Your task to perform on an android device: set default search engine in the chrome app Image 0: 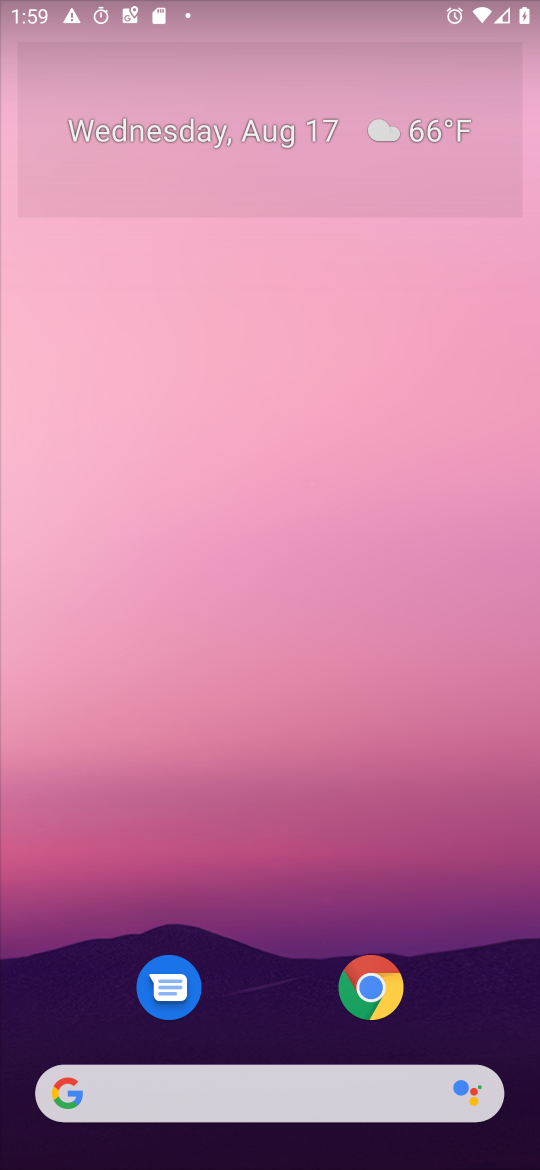
Step 0: click (348, 978)
Your task to perform on an android device: set default search engine in the chrome app Image 1: 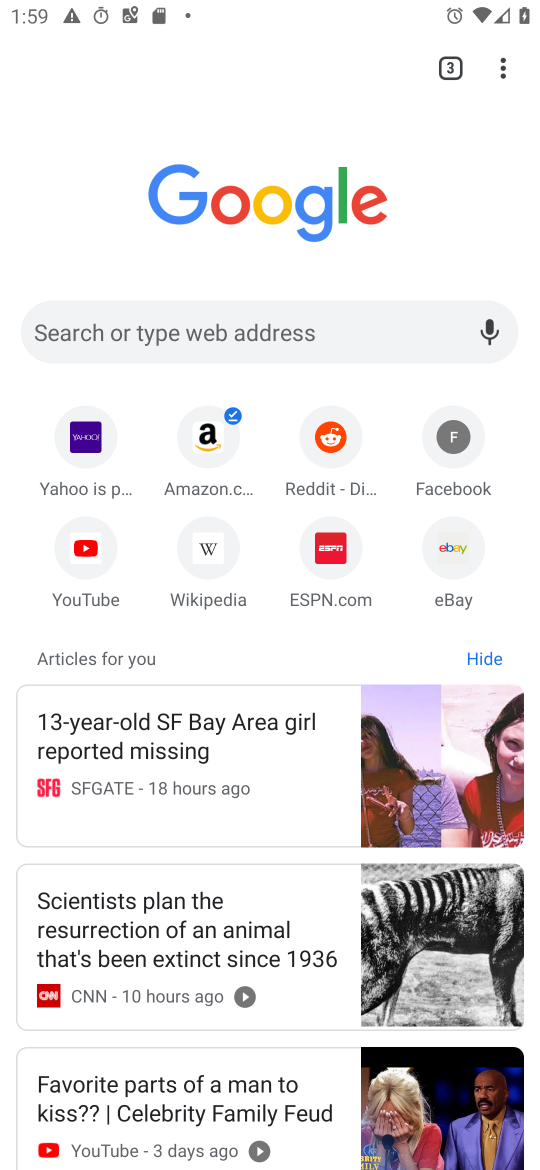
Step 1: click (507, 62)
Your task to perform on an android device: set default search engine in the chrome app Image 2: 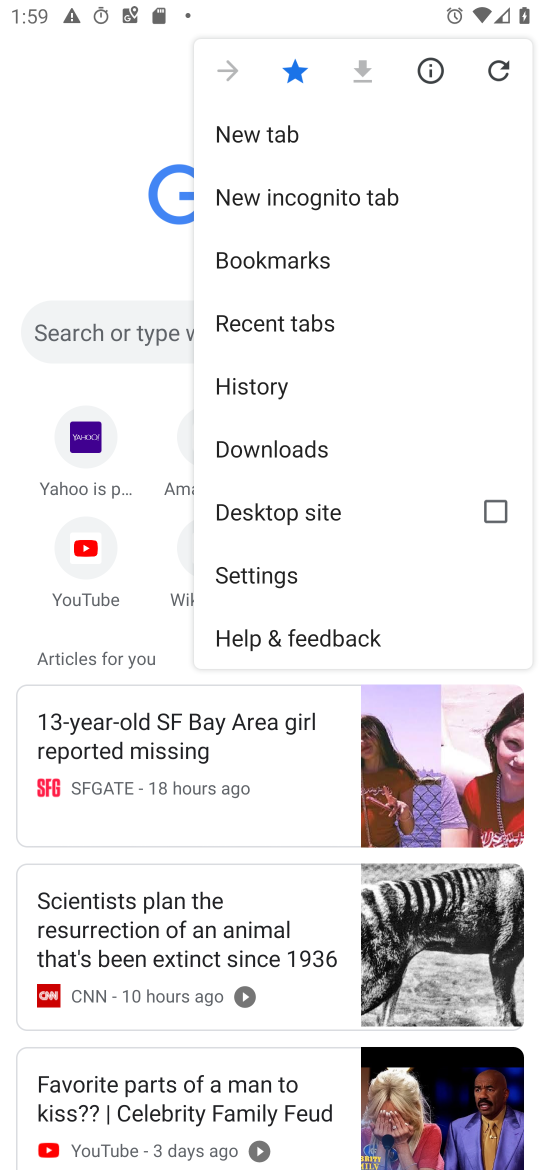
Step 2: click (272, 569)
Your task to perform on an android device: set default search engine in the chrome app Image 3: 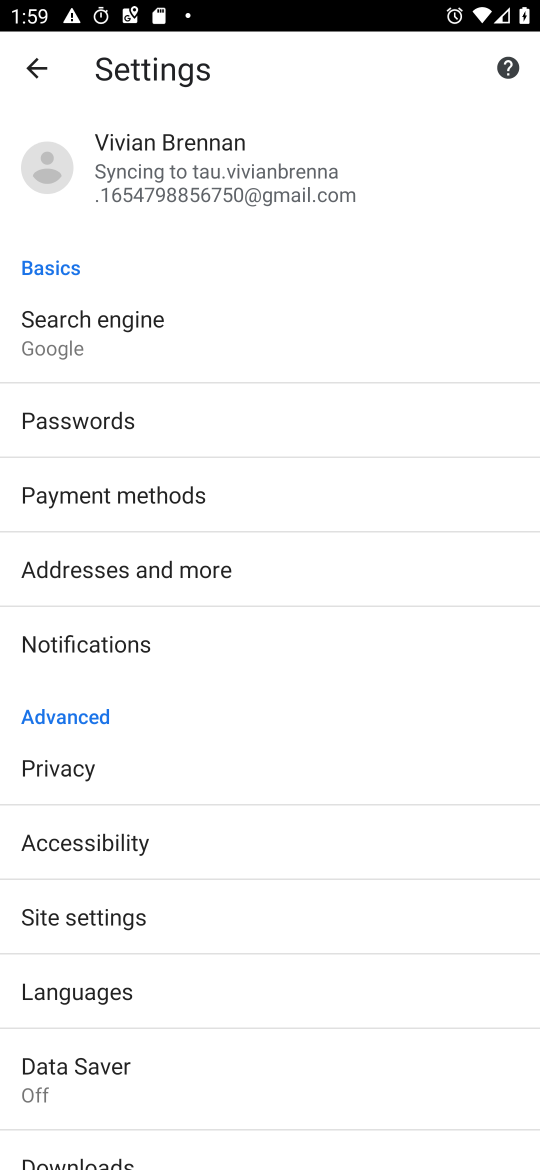
Step 3: task complete